Your task to perform on an android device: turn off translation in the chrome app Image 0: 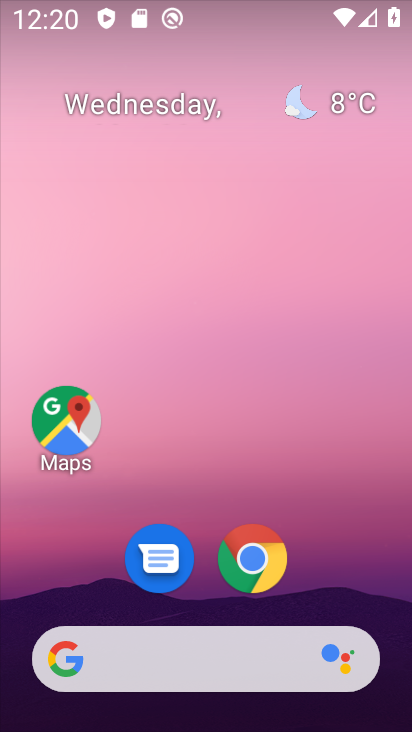
Step 0: drag from (321, 553) to (258, 4)
Your task to perform on an android device: turn off translation in the chrome app Image 1: 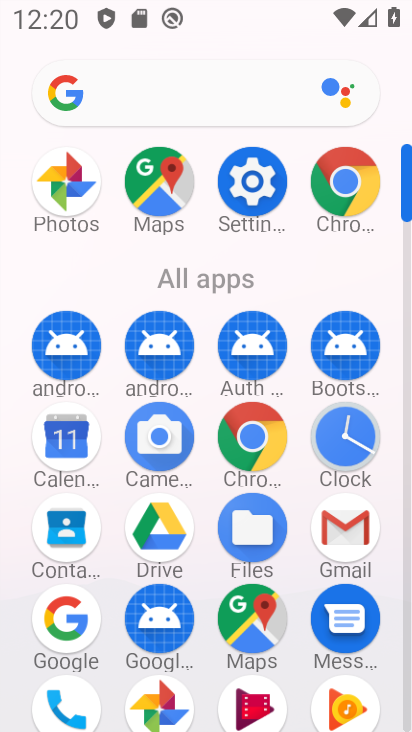
Step 1: drag from (1, 573) to (12, 226)
Your task to perform on an android device: turn off translation in the chrome app Image 2: 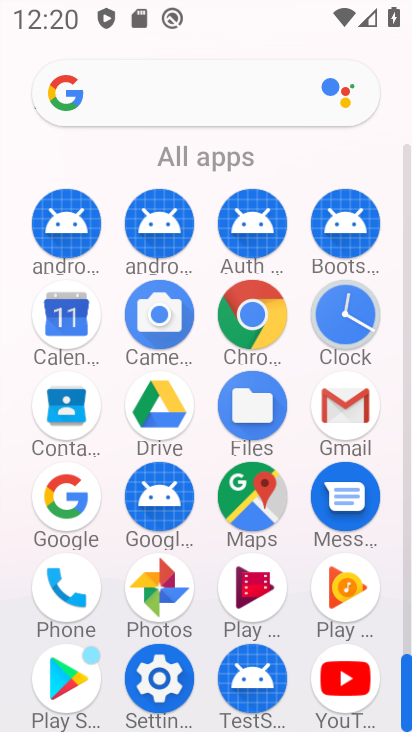
Step 2: click (250, 306)
Your task to perform on an android device: turn off translation in the chrome app Image 3: 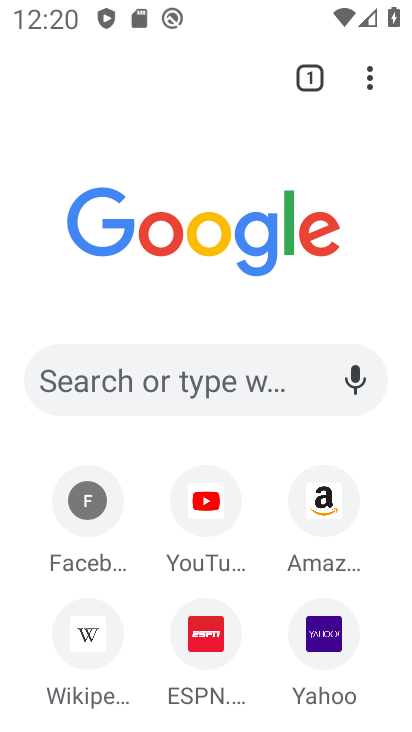
Step 3: drag from (375, 75) to (146, 617)
Your task to perform on an android device: turn off translation in the chrome app Image 4: 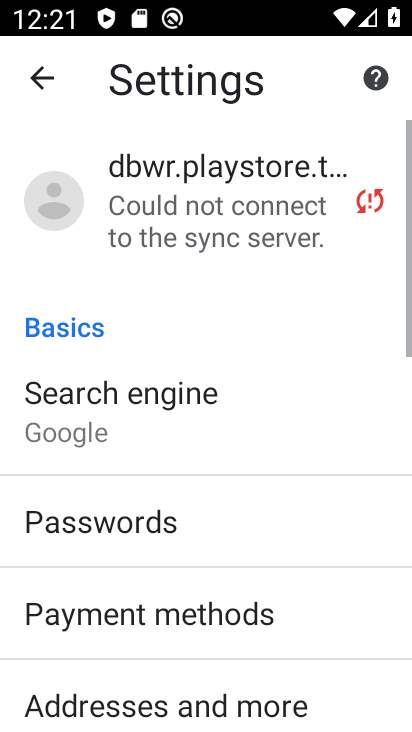
Step 4: drag from (224, 573) to (217, 166)
Your task to perform on an android device: turn off translation in the chrome app Image 5: 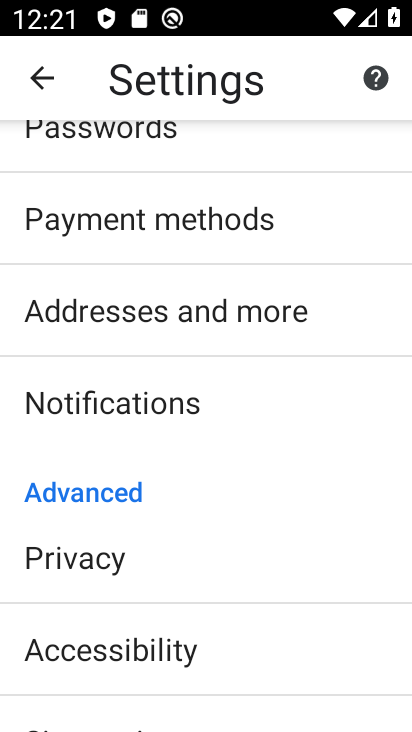
Step 5: drag from (192, 572) to (225, 177)
Your task to perform on an android device: turn off translation in the chrome app Image 6: 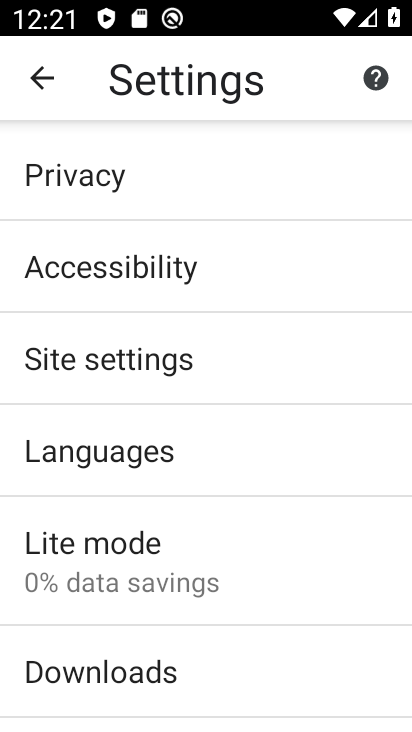
Step 6: drag from (215, 594) to (255, 208)
Your task to perform on an android device: turn off translation in the chrome app Image 7: 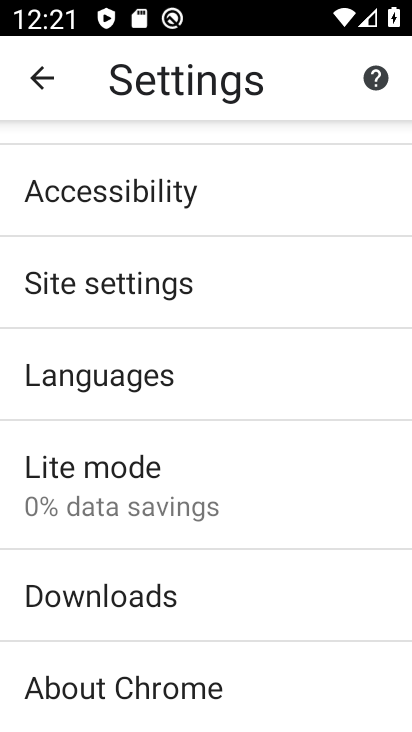
Step 7: click (142, 354)
Your task to perform on an android device: turn off translation in the chrome app Image 8: 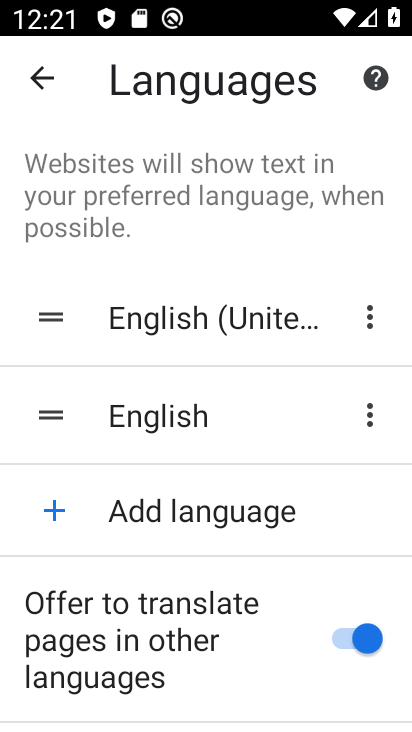
Step 8: click (344, 635)
Your task to perform on an android device: turn off translation in the chrome app Image 9: 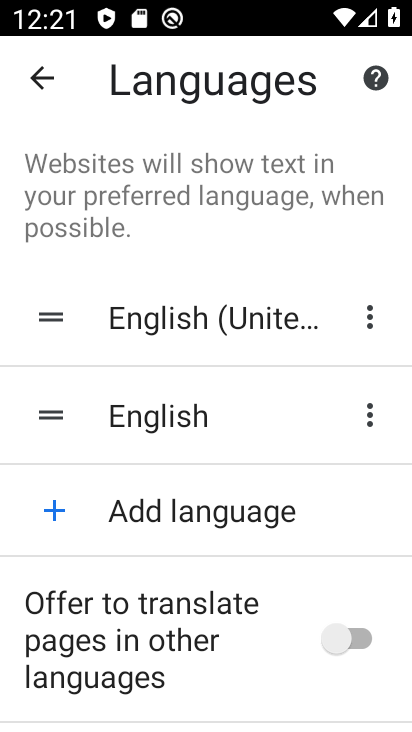
Step 9: task complete